Your task to perform on an android device: Go to accessibility settings Image 0: 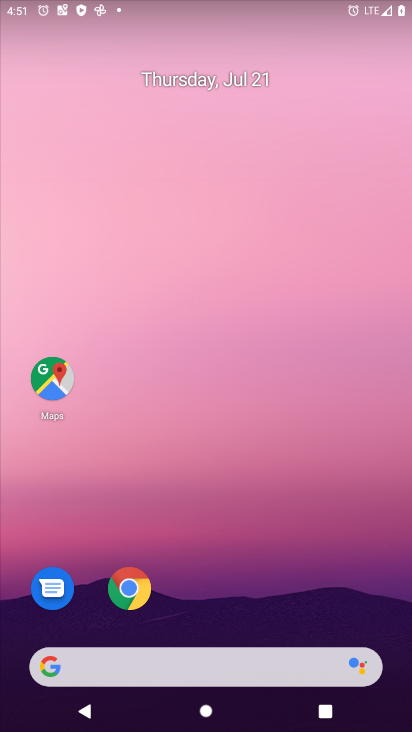
Step 0: press home button
Your task to perform on an android device: Go to accessibility settings Image 1: 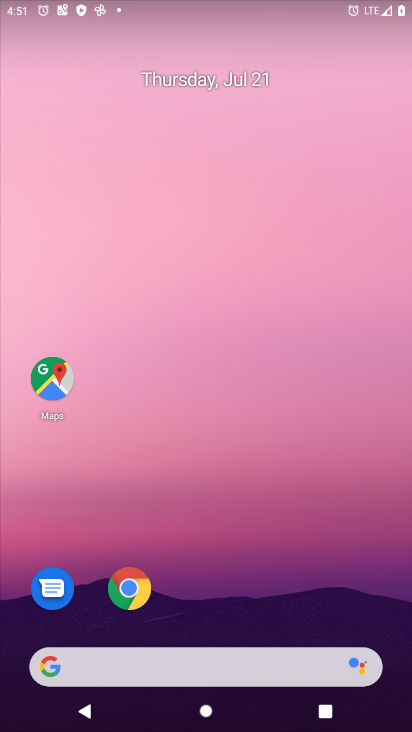
Step 1: drag from (287, 607) to (288, 114)
Your task to perform on an android device: Go to accessibility settings Image 2: 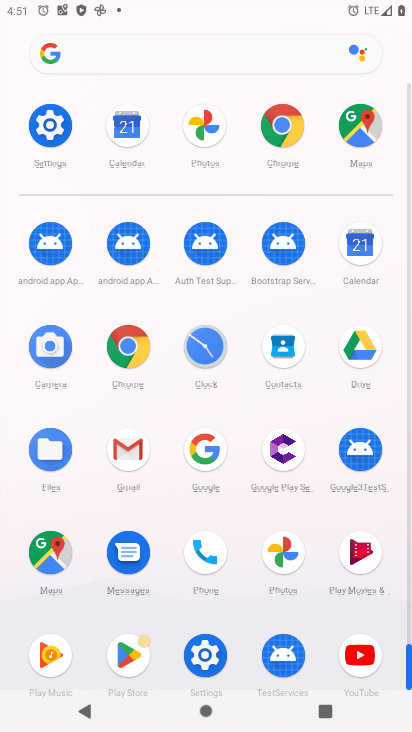
Step 2: click (208, 647)
Your task to perform on an android device: Go to accessibility settings Image 3: 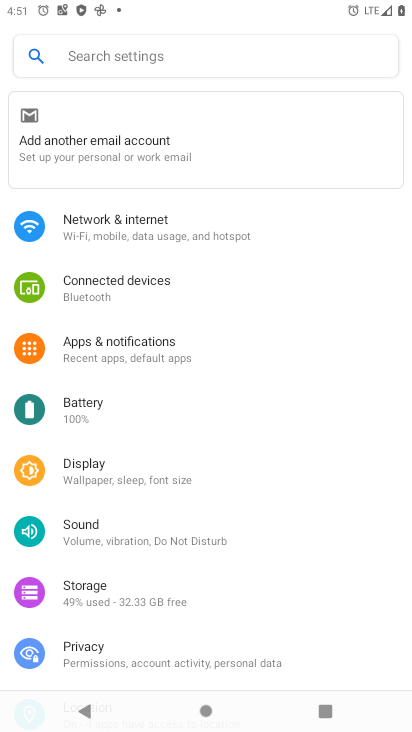
Step 3: drag from (199, 590) to (220, 122)
Your task to perform on an android device: Go to accessibility settings Image 4: 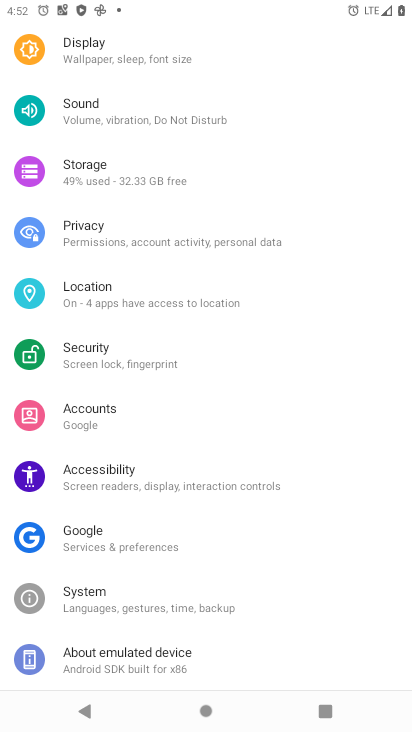
Step 4: click (82, 485)
Your task to perform on an android device: Go to accessibility settings Image 5: 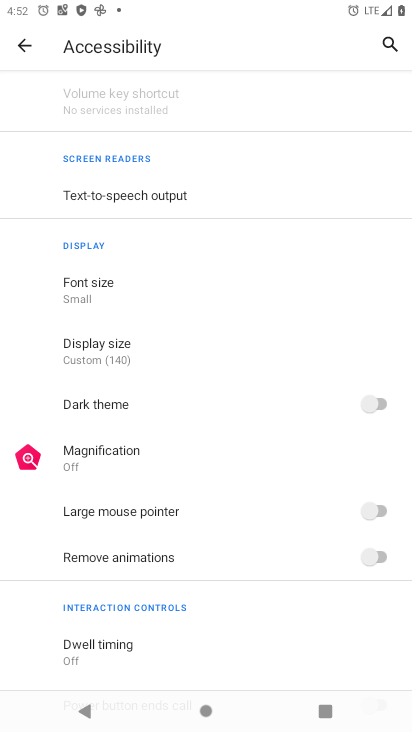
Step 5: click (95, 596)
Your task to perform on an android device: Go to accessibility settings Image 6: 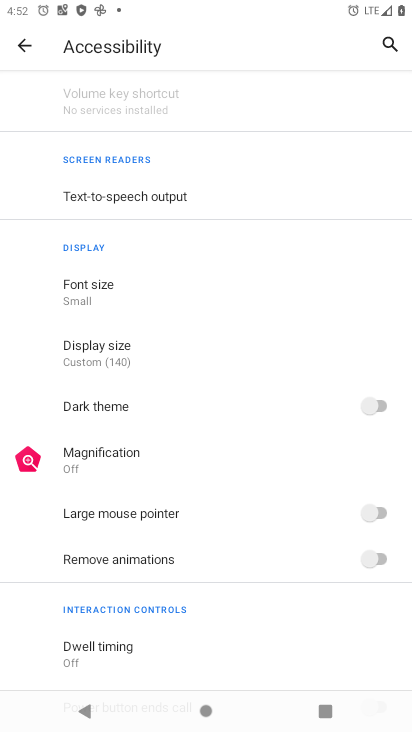
Step 6: task complete